Your task to perform on an android device: Open the stopwatch Image 0: 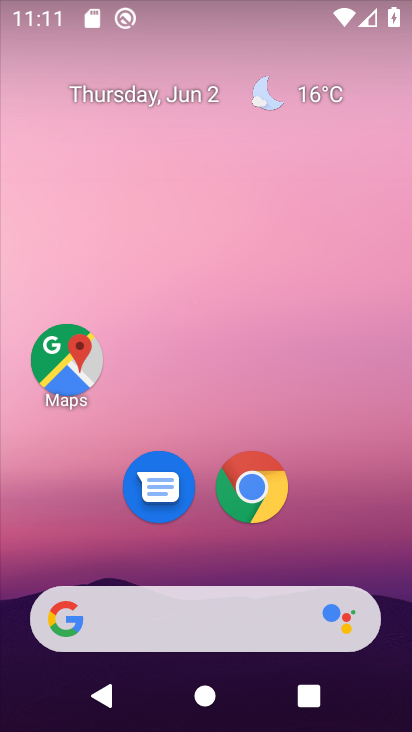
Step 0: drag from (332, 449) to (263, 61)
Your task to perform on an android device: Open the stopwatch Image 1: 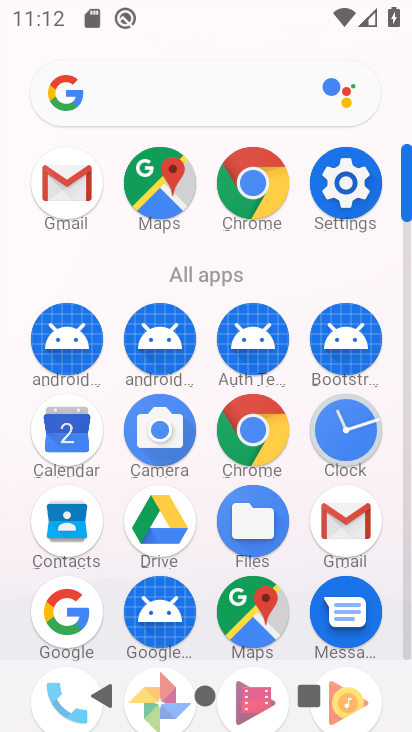
Step 1: click (346, 428)
Your task to perform on an android device: Open the stopwatch Image 2: 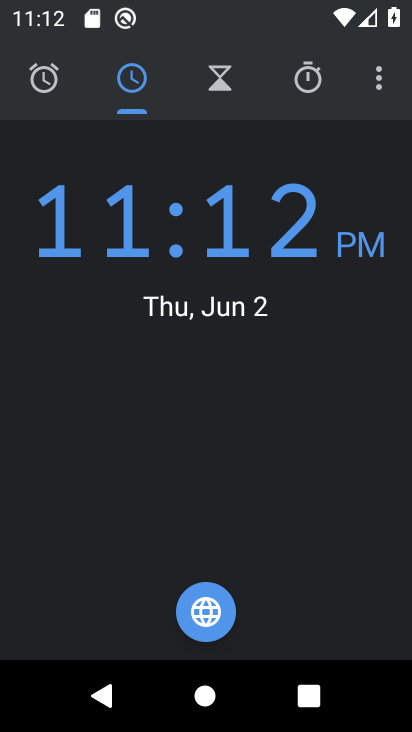
Step 2: click (310, 81)
Your task to perform on an android device: Open the stopwatch Image 3: 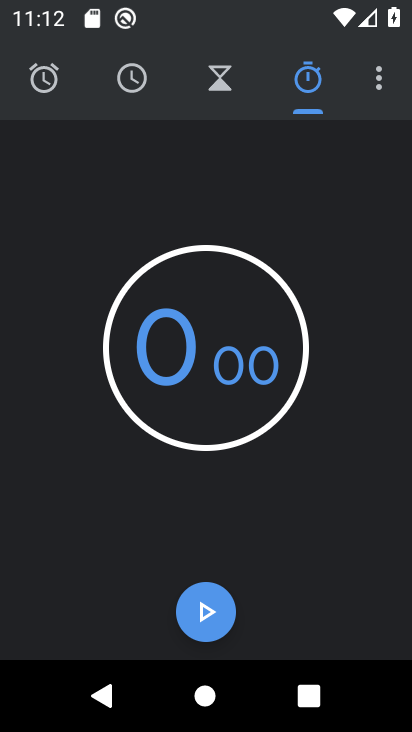
Step 3: task complete